Your task to perform on an android device: Go to display settings Image 0: 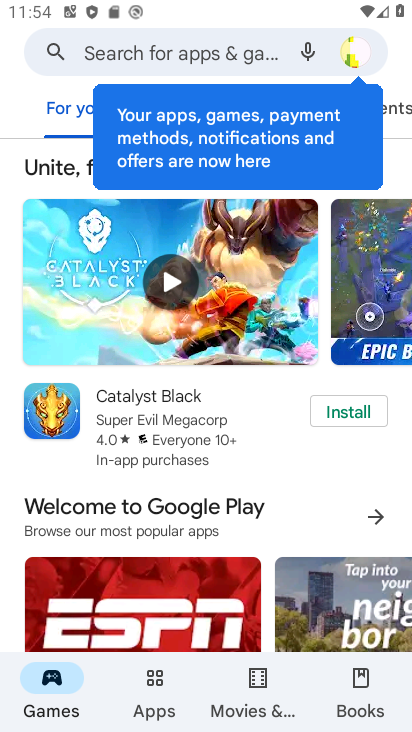
Step 0: press home button
Your task to perform on an android device: Go to display settings Image 1: 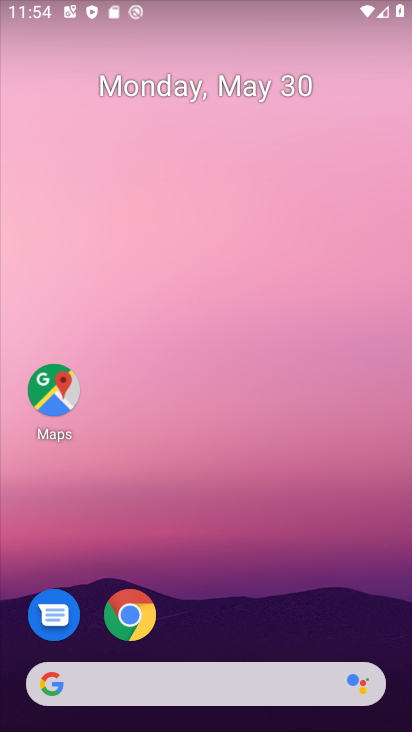
Step 1: drag from (363, 643) to (384, 222)
Your task to perform on an android device: Go to display settings Image 2: 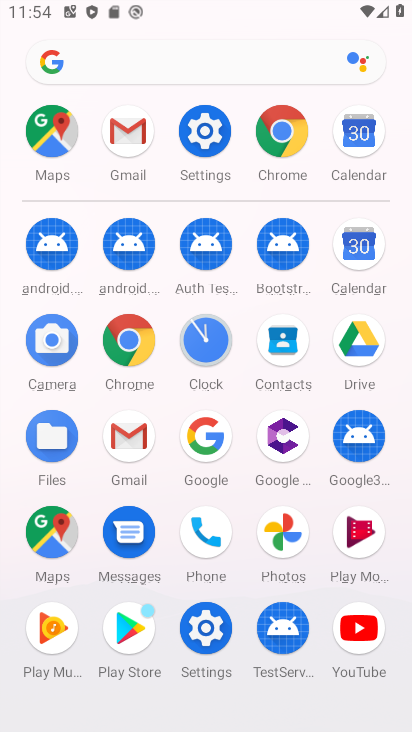
Step 2: click (197, 636)
Your task to perform on an android device: Go to display settings Image 3: 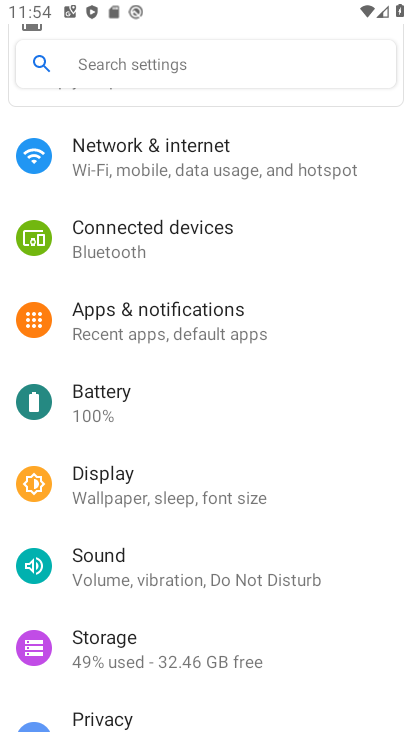
Step 3: drag from (349, 256) to (350, 374)
Your task to perform on an android device: Go to display settings Image 4: 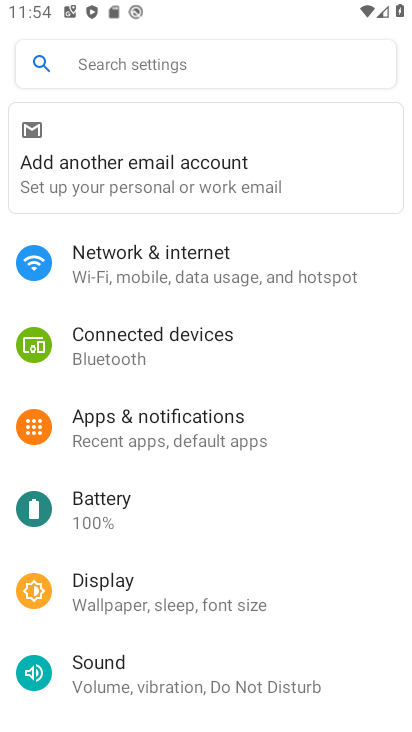
Step 4: drag from (369, 234) to (365, 367)
Your task to perform on an android device: Go to display settings Image 5: 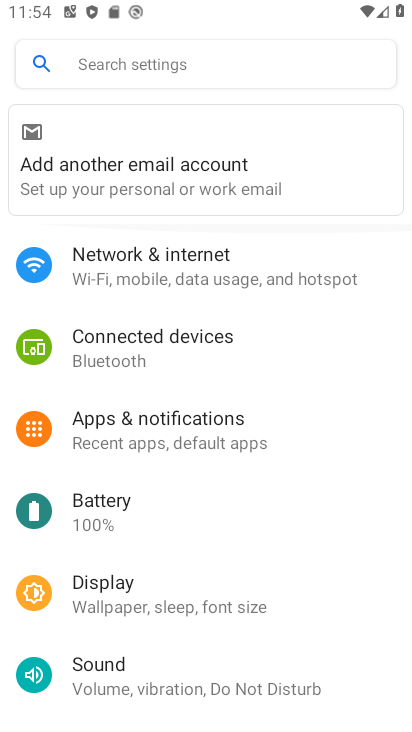
Step 5: drag from (346, 528) to (336, 407)
Your task to perform on an android device: Go to display settings Image 6: 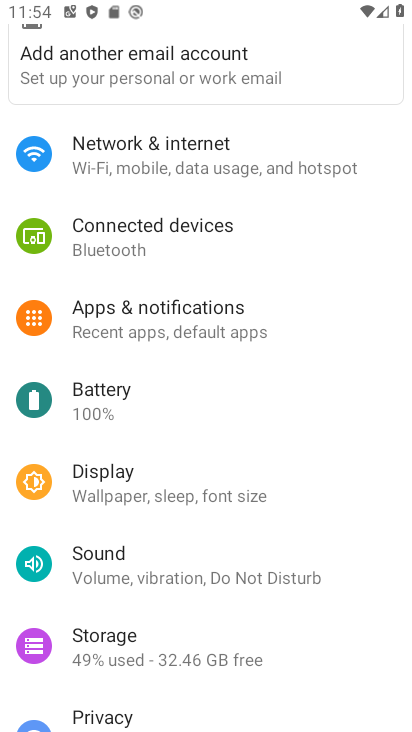
Step 6: drag from (343, 529) to (343, 349)
Your task to perform on an android device: Go to display settings Image 7: 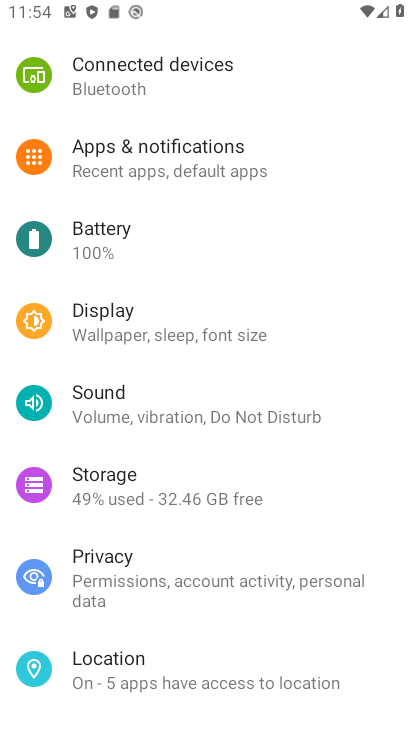
Step 7: drag from (350, 614) to (349, 485)
Your task to perform on an android device: Go to display settings Image 8: 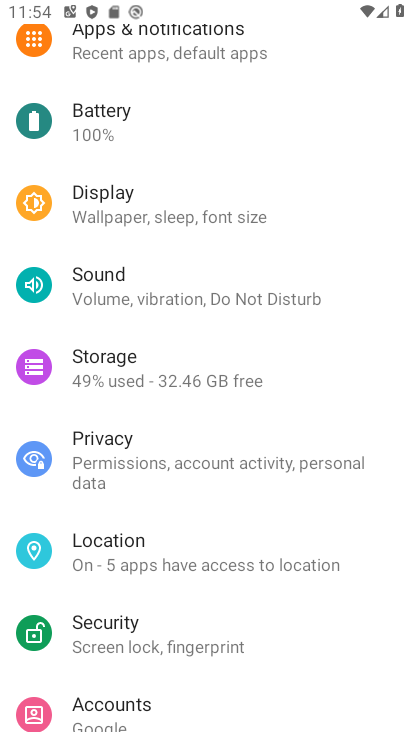
Step 8: drag from (355, 271) to (355, 402)
Your task to perform on an android device: Go to display settings Image 9: 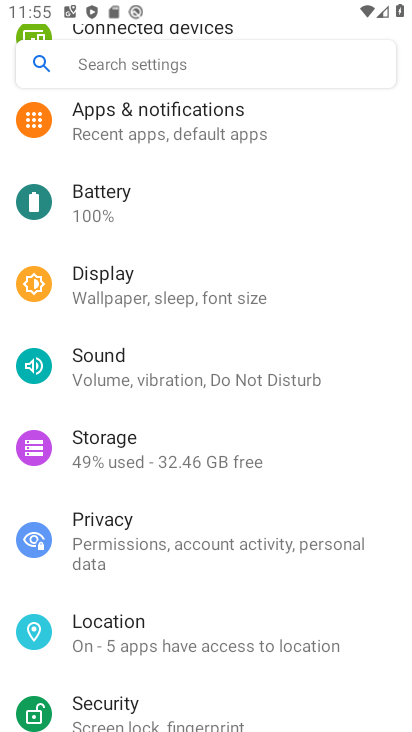
Step 9: drag from (356, 283) to (357, 377)
Your task to perform on an android device: Go to display settings Image 10: 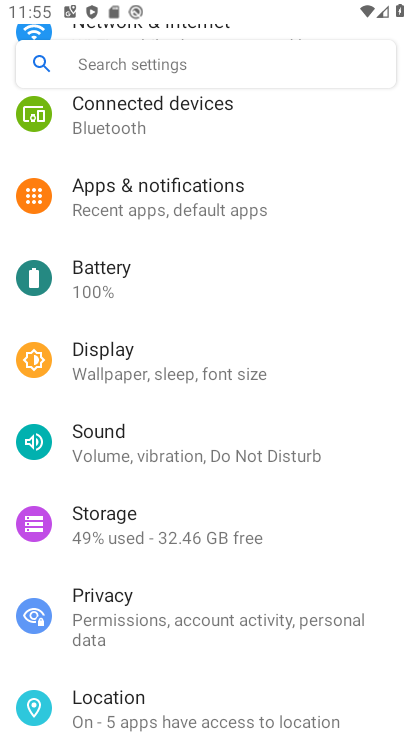
Step 10: click (203, 366)
Your task to perform on an android device: Go to display settings Image 11: 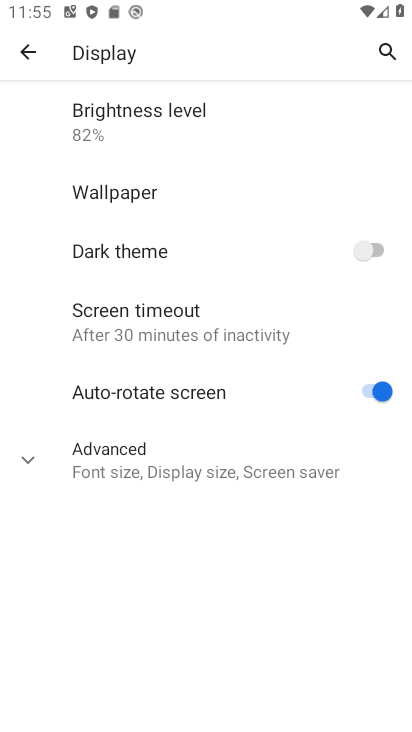
Step 11: click (267, 471)
Your task to perform on an android device: Go to display settings Image 12: 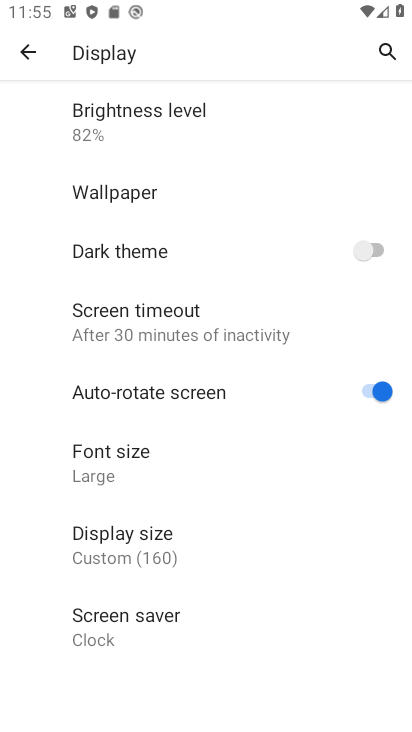
Step 12: task complete